Your task to perform on an android device: check android version Image 0: 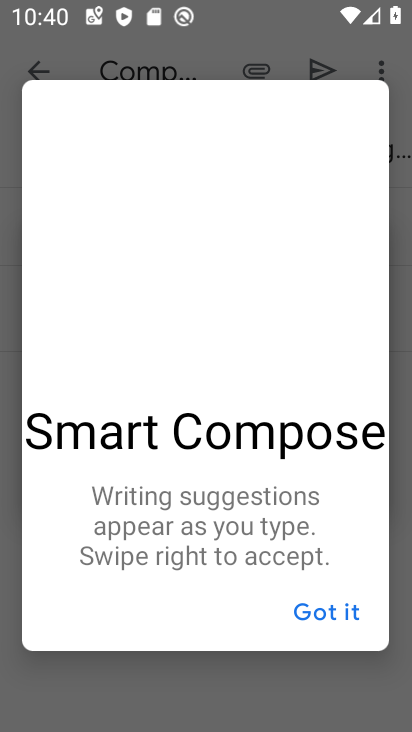
Step 0: press back button
Your task to perform on an android device: check android version Image 1: 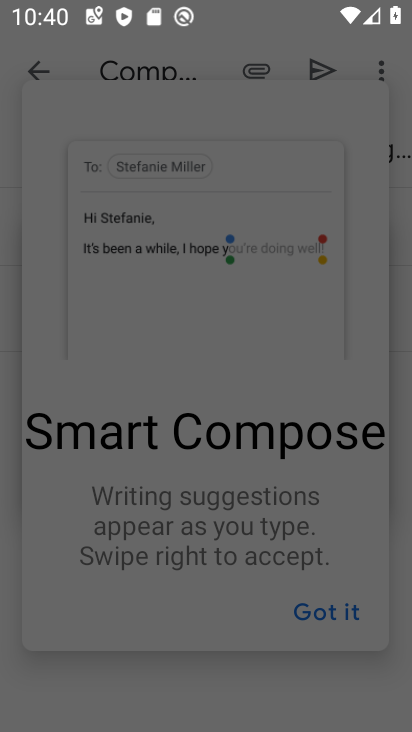
Step 1: press back button
Your task to perform on an android device: check android version Image 2: 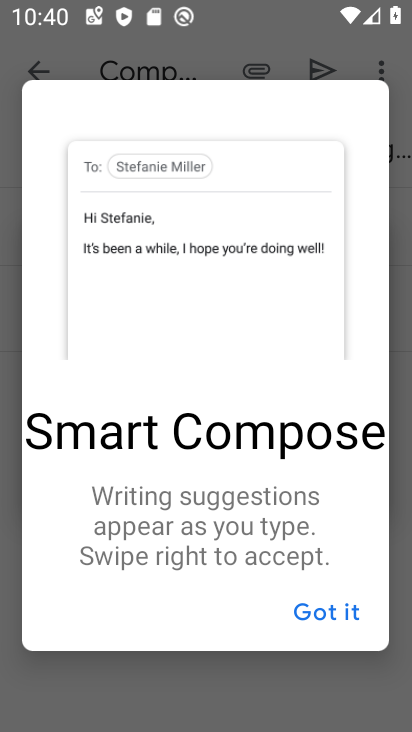
Step 2: press home button
Your task to perform on an android device: check android version Image 3: 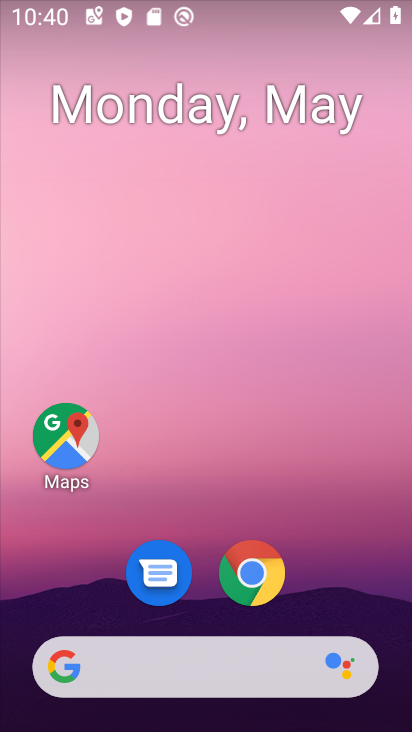
Step 3: drag from (189, 610) to (334, 6)
Your task to perform on an android device: check android version Image 4: 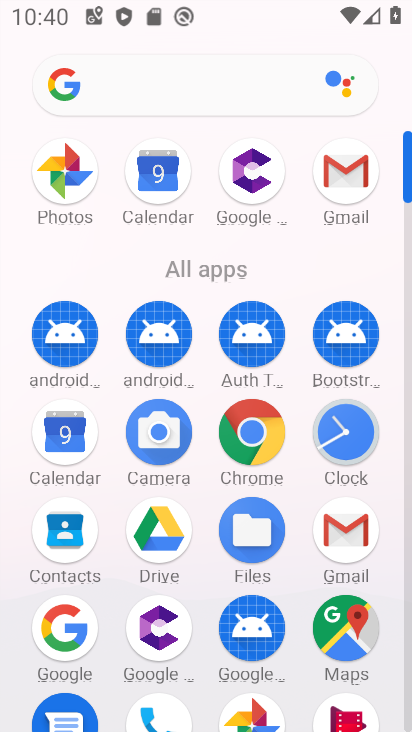
Step 4: drag from (217, 627) to (335, 29)
Your task to perform on an android device: check android version Image 5: 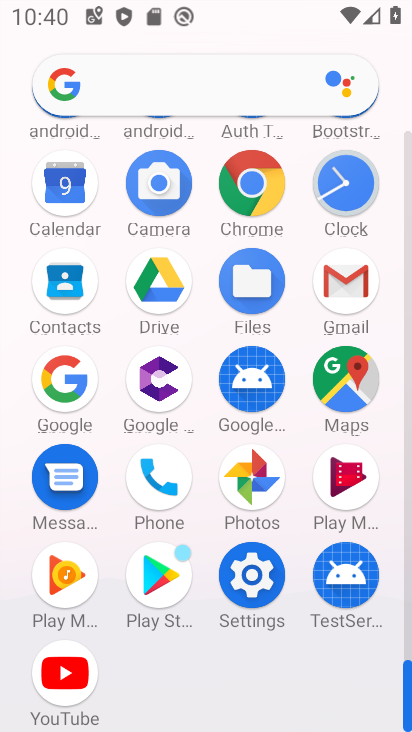
Step 5: click (246, 570)
Your task to perform on an android device: check android version Image 6: 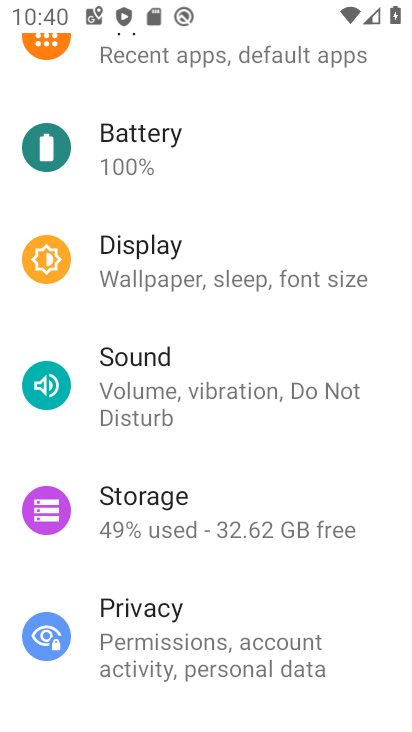
Step 6: drag from (213, 650) to (339, 22)
Your task to perform on an android device: check android version Image 7: 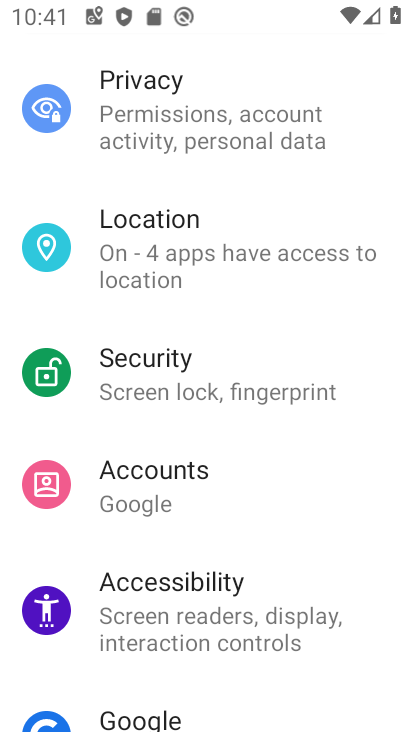
Step 7: drag from (232, 631) to (354, 27)
Your task to perform on an android device: check android version Image 8: 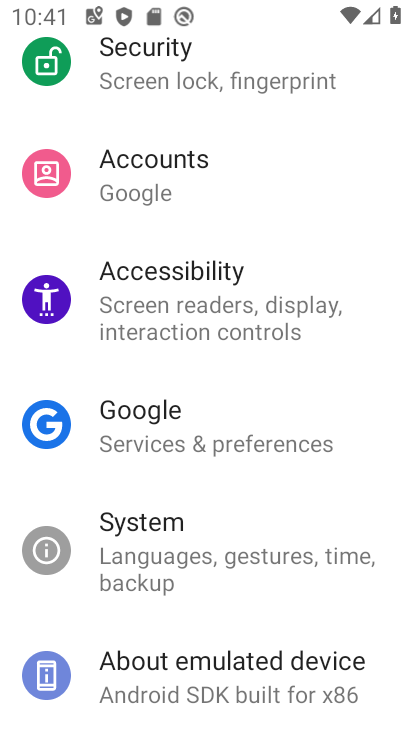
Step 8: click (166, 680)
Your task to perform on an android device: check android version Image 9: 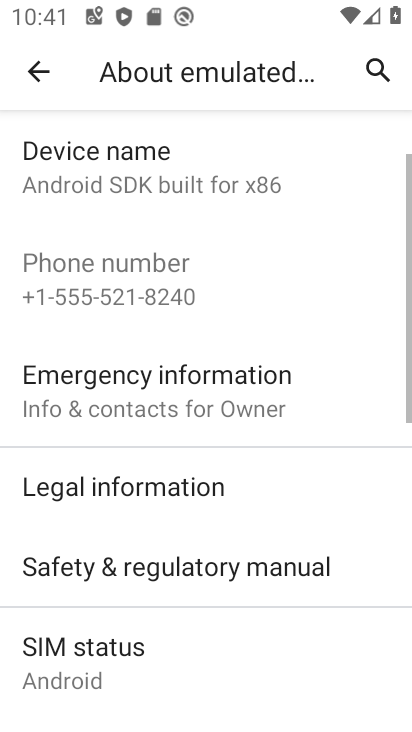
Step 9: drag from (141, 664) to (278, 224)
Your task to perform on an android device: check android version Image 10: 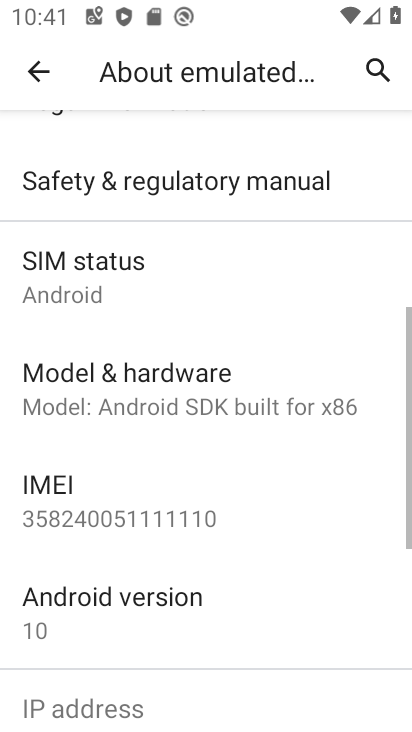
Step 10: click (117, 605)
Your task to perform on an android device: check android version Image 11: 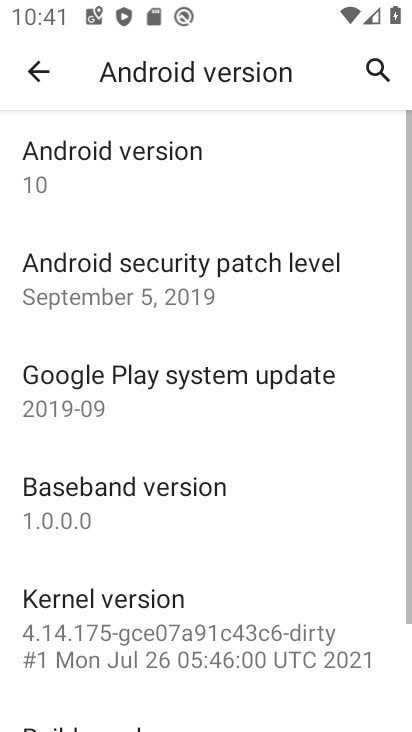
Step 11: click (69, 161)
Your task to perform on an android device: check android version Image 12: 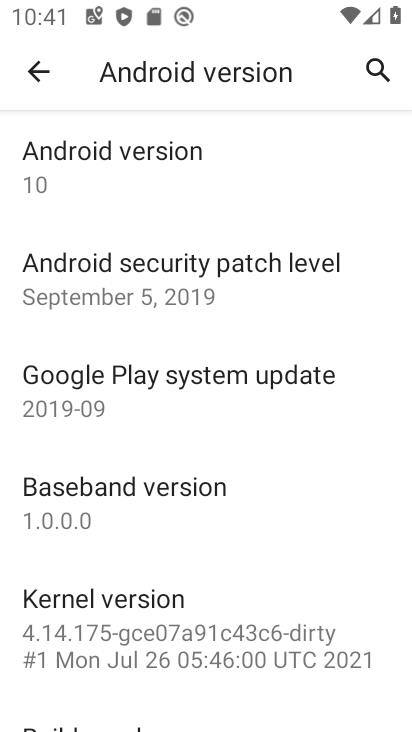
Step 12: task complete